Your task to perform on an android device: open a bookmark in the chrome app Image 0: 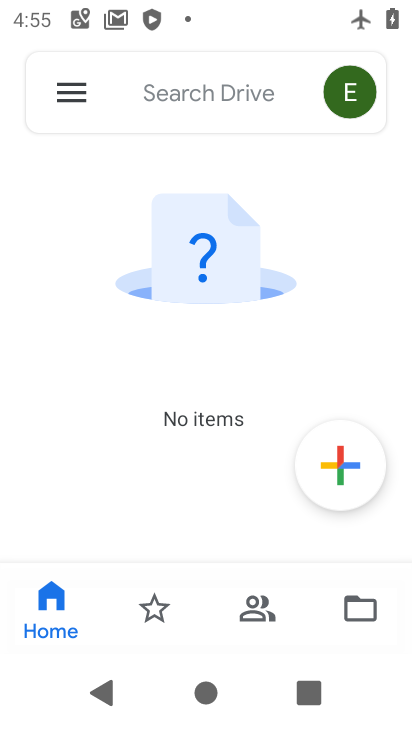
Step 0: drag from (206, 532) to (240, 354)
Your task to perform on an android device: open a bookmark in the chrome app Image 1: 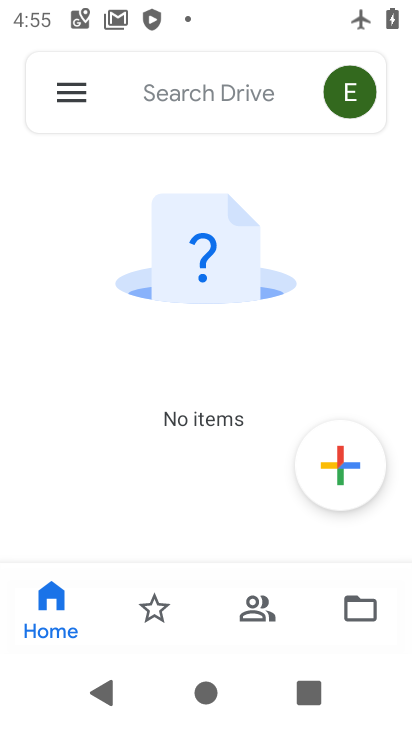
Step 1: press home button
Your task to perform on an android device: open a bookmark in the chrome app Image 2: 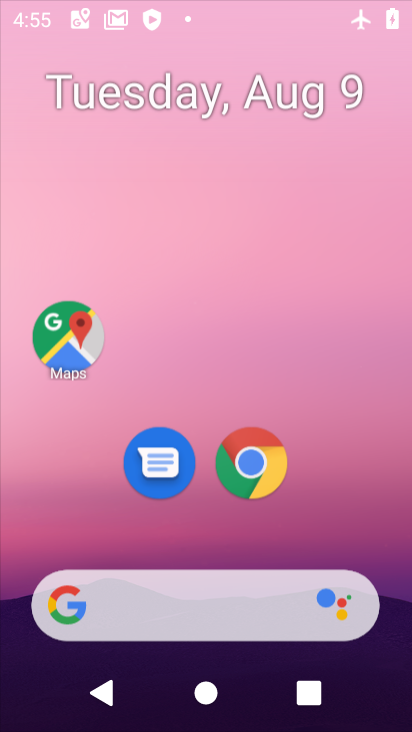
Step 2: drag from (188, 643) to (390, 167)
Your task to perform on an android device: open a bookmark in the chrome app Image 3: 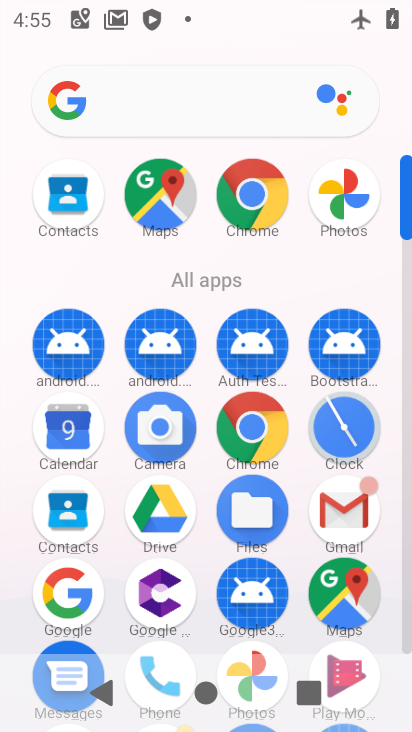
Step 3: click (247, 178)
Your task to perform on an android device: open a bookmark in the chrome app Image 4: 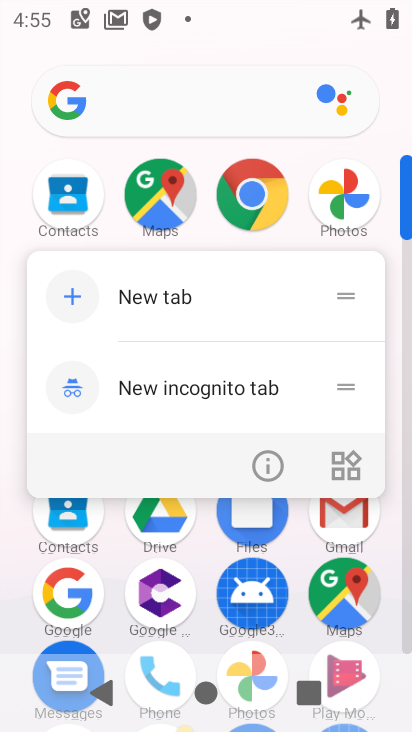
Step 4: click (255, 465)
Your task to perform on an android device: open a bookmark in the chrome app Image 5: 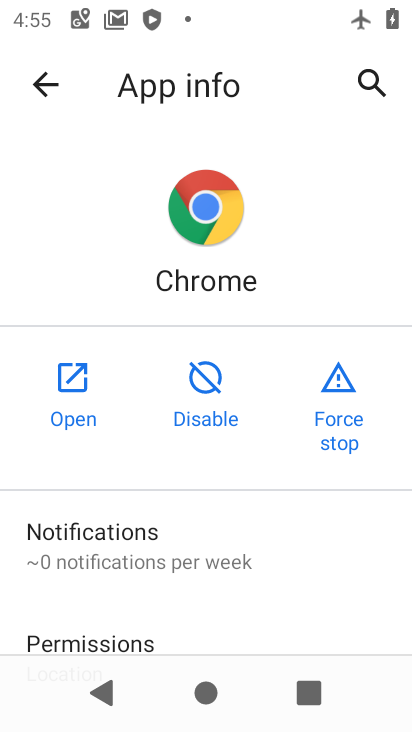
Step 5: click (73, 363)
Your task to perform on an android device: open a bookmark in the chrome app Image 6: 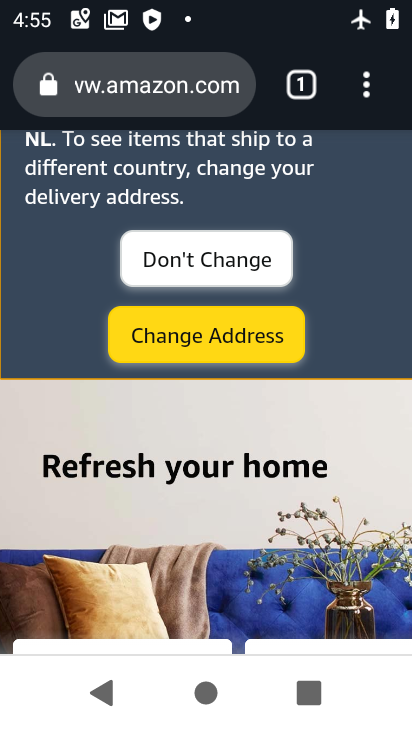
Step 6: task complete